Your task to perform on an android device: turn on translation in the chrome app Image 0: 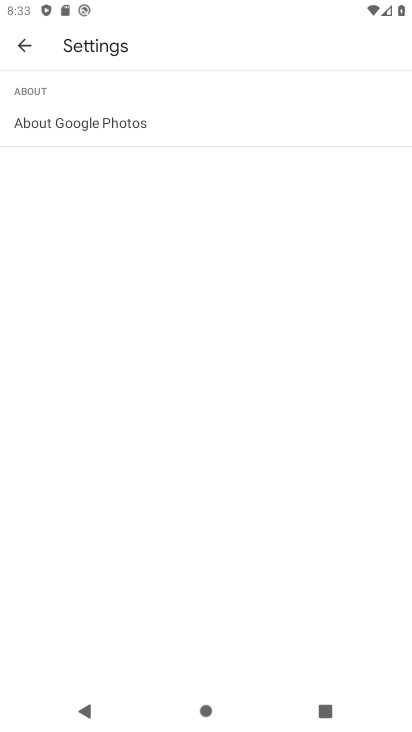
Step 0: press home button
Your task to perform on an android device: turn on translation in the chrome app Image 1: 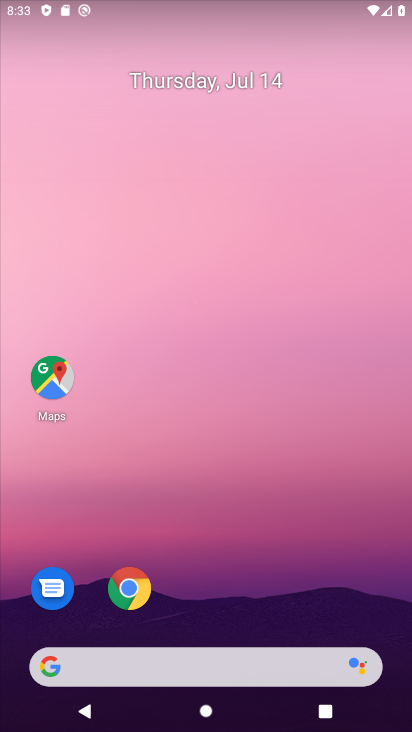
Step 1: drag from (215, 620) to (277, 98)
Your task to perform on an android device: turn on translation in the chrome app Image 2: 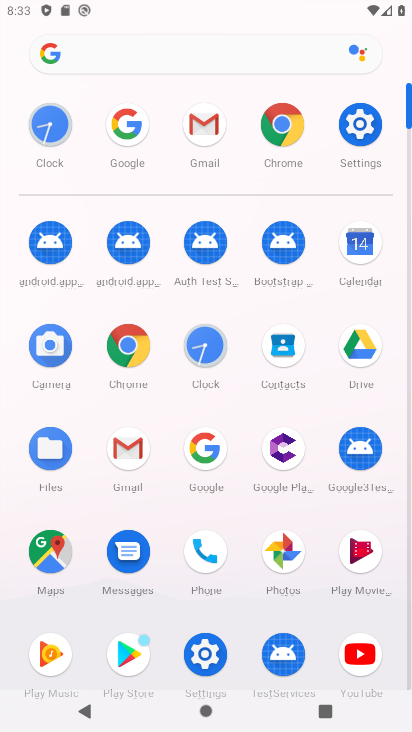
Step 2: click (285, 122)
Your task to perform on an android device: turn on translation in the chrome app Image 3: 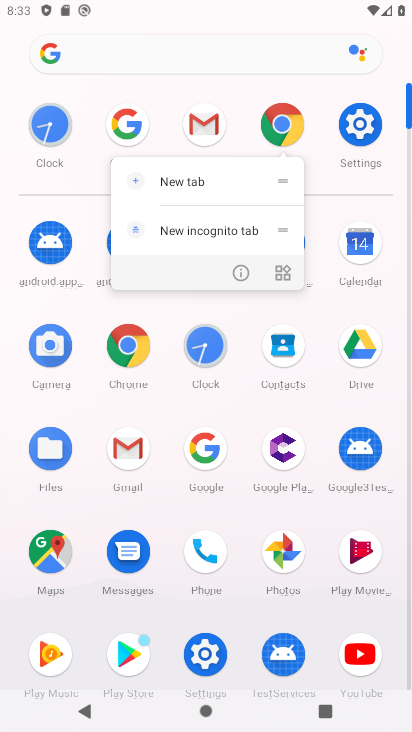
Step 3: click (285, 122)
Your task to perform on an android device: turn on translation in the chrome app Image 4: 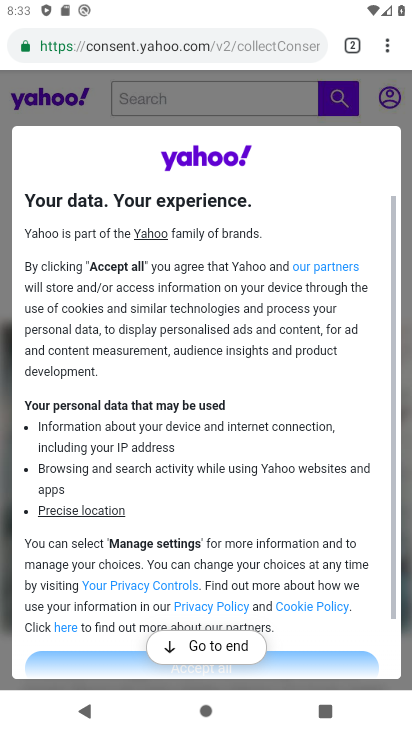
Step 4: click (383, 49)
Your task to perform on an android device: turn on translation in the chrome app Image 5: 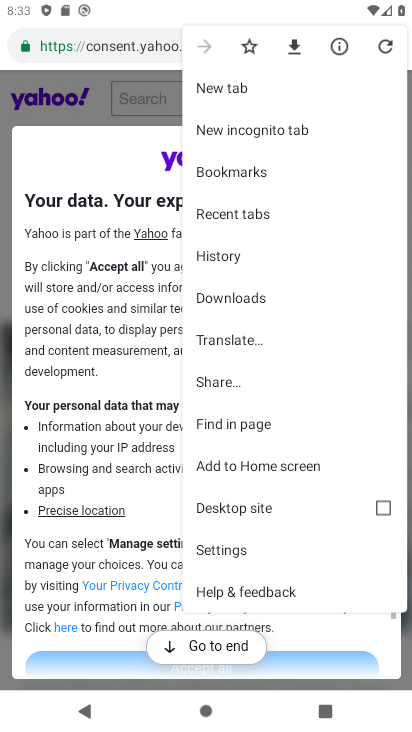
Step 5: click (270, 547)
Your task to perform on an android device: turn on translation in the chrome app Image 6: 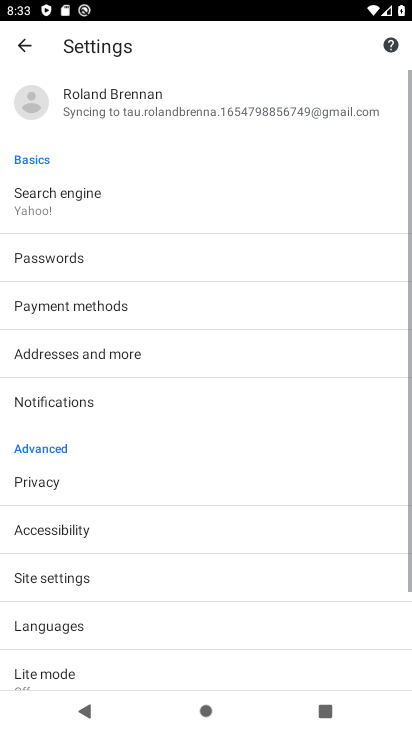
Step 6: drag from (203, 598) to (199, 453)
Your task to perform on an android device: turn on translation in the chrome app Image 7: 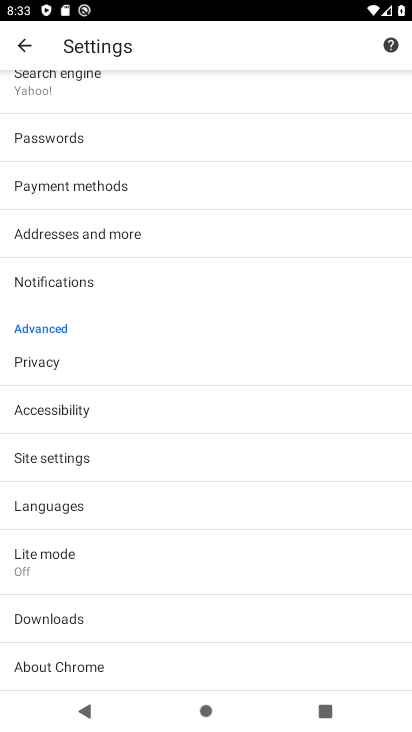
Step 7: click (99, 503)
Your task to perform on an android device: turn on translation in the chrome app Image 8: 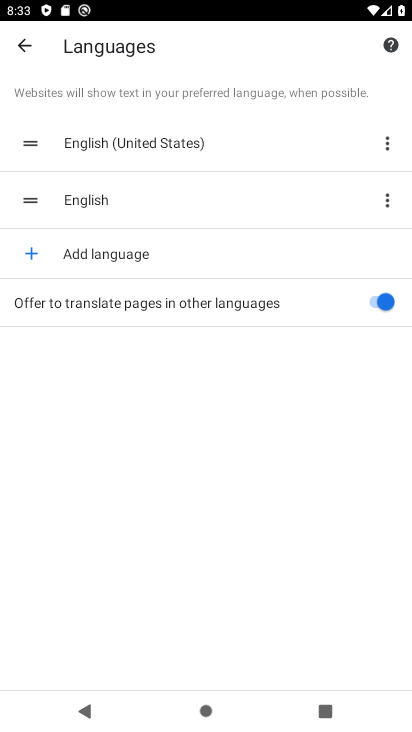
Step 8: task complete